Your task to perform on an android device: Go to Yahoo.com Image 0: 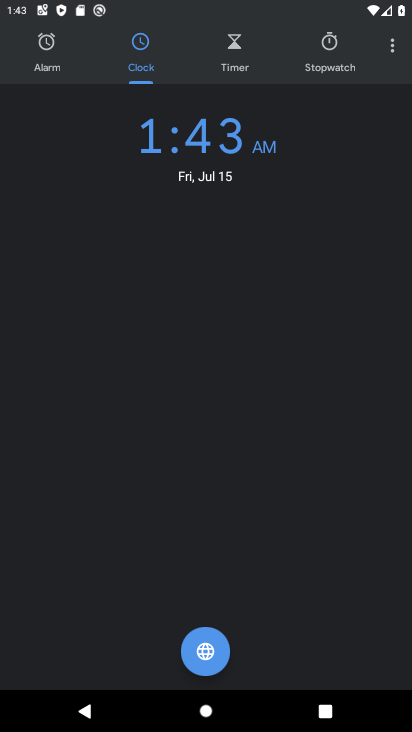
Step 0: press home button
Your task to perform on an android device: Go to Yahoo.com Image 1: 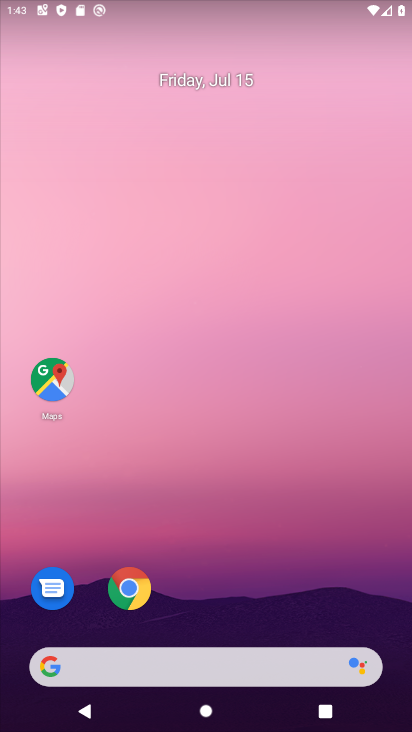
Step 1: click (128, 590)
Your task to perform on an android device: Go to Yahoo.com Image 2: 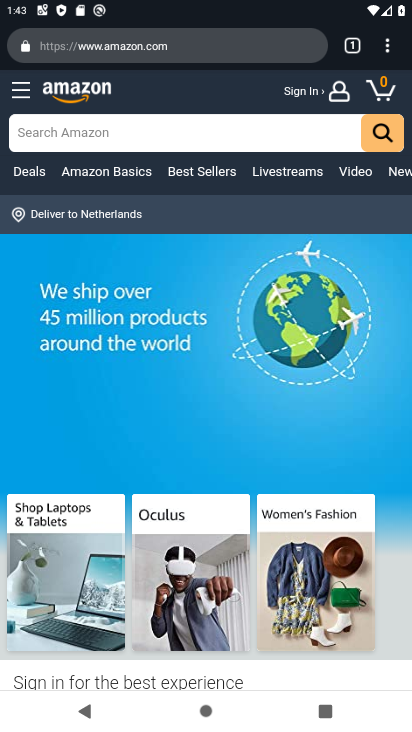
Step 2: click (223, 51)
Your task to perform on an android device: Go to Yahoo.com Image 3: 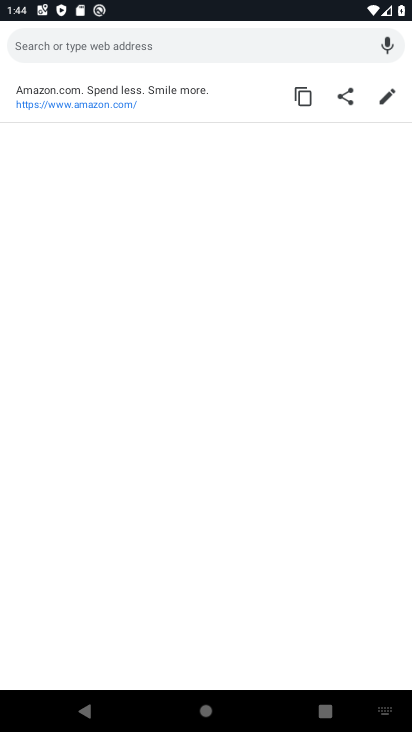
Step 3: type "Yahoo.com"
Your task to perform on an android device: Go to Yahoo.com Image 4: 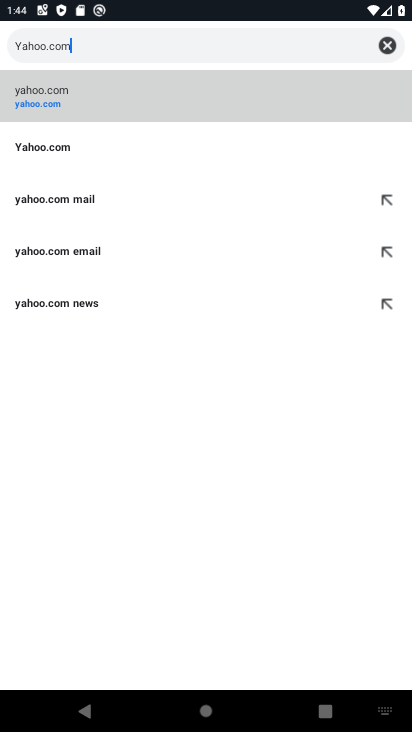
Step 4: click (30, 147)
Your task to perform on an android device: Go to Yahoo.com Image 5: 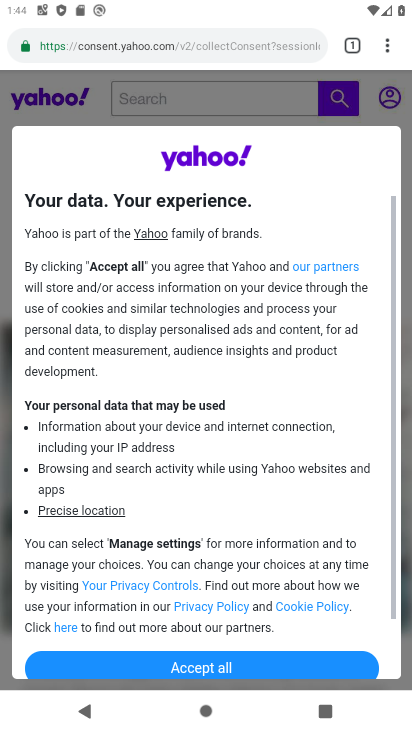
Step 5: click (212, 666)
Your task to perform on an android device: Go to Yahoo.com Image 6: 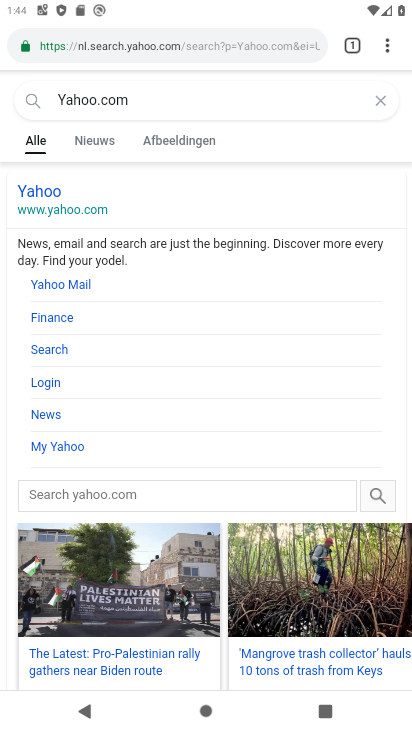
Step 6: click (43, 209)
Your task to perform on an android device: Go to Yahoo.com Image 7: 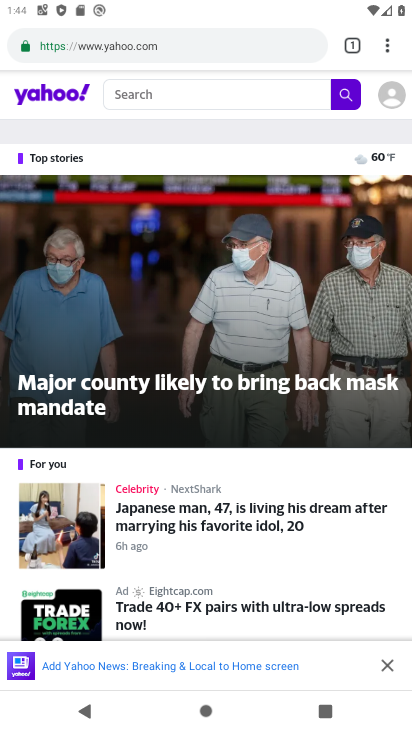
Step 7: task complete